Your task to perform on an android device: open device folders in google photos Image 0: 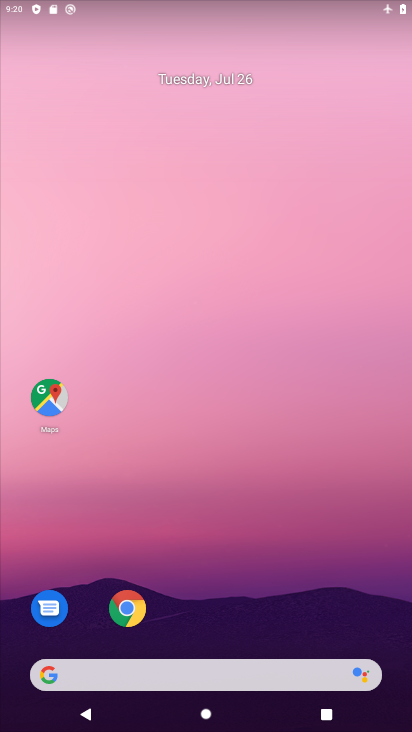
Step 0: drag from (238, 635) to (194, 156)
Your task to perform on an android device: open device folders in google photos Image 1: 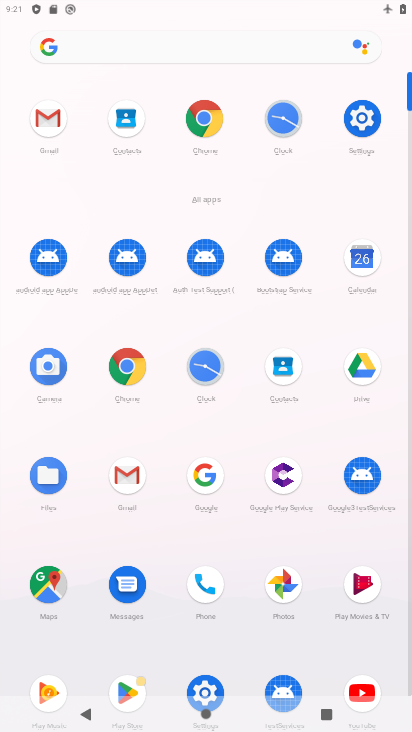
Step 1: click (282, 586)
Your task to perform on an android device: open device folders in google photos Image 2: 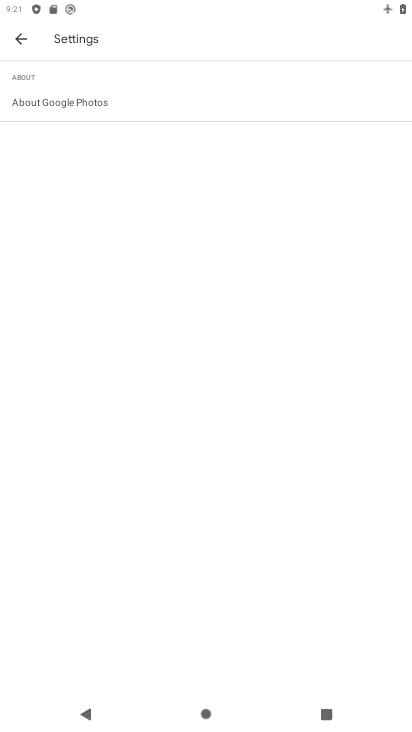
Step 2: click (20, 31)
Your task to perform on an android device: open device folders in google photos Image 3: 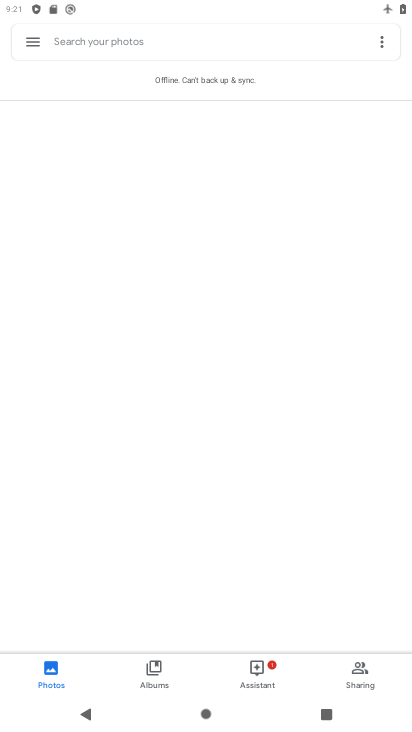
Step 3: click (31, 46)
Your task to perform on an android device: open device folders in google photos Image 4: 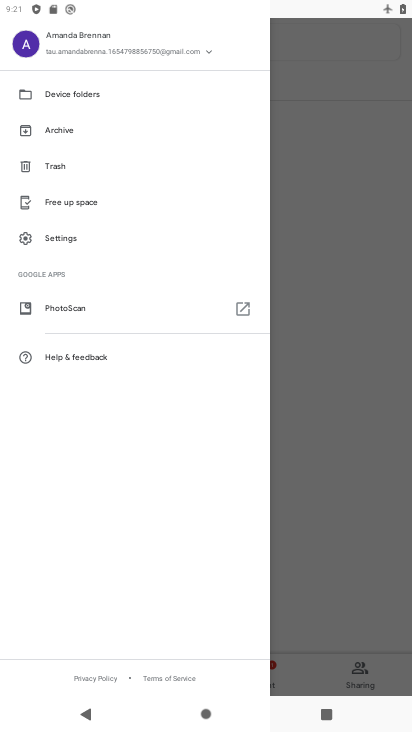
Step 4: click (112, 98)
Your task to perform on an android device: open device folders in google photos Image 5: 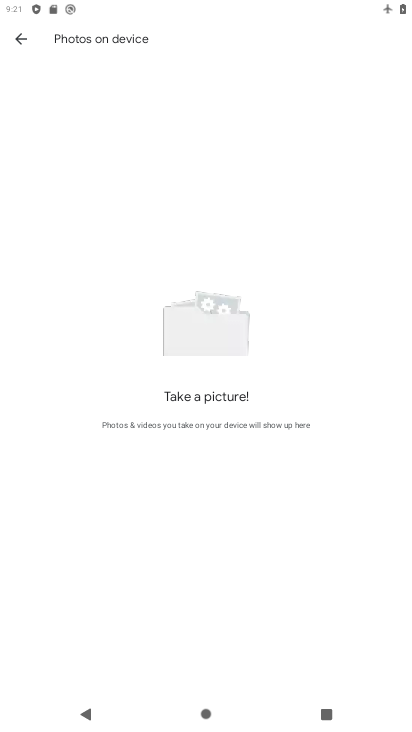
Step 5: task complete